Your task to perform on an android device: turn on data saver in the chrome app Image 0: 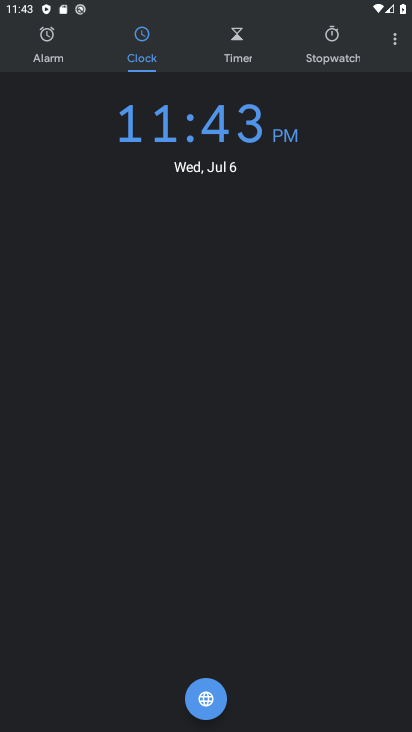
Step 0: press home button
Your task to perform on an android device: turn on data saver in the chrome app Image 1: 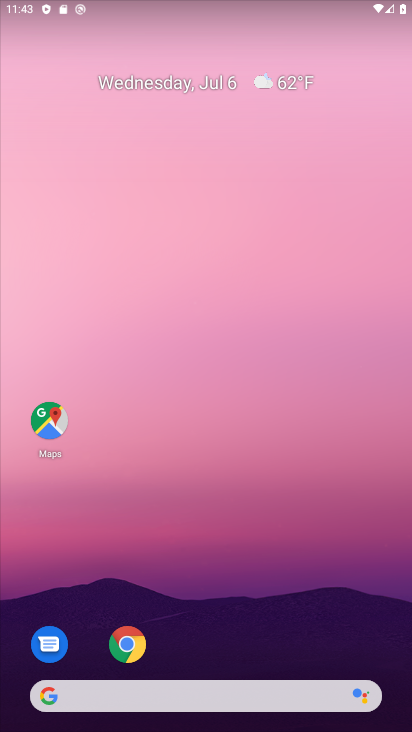
Step 1: drag from (246, 556) to (307, 131)
Your task to perform on an android device: turn on data saver in the chrome app Image 2: 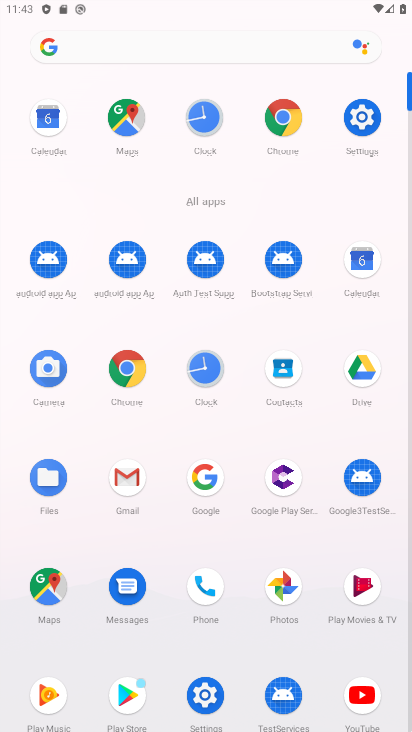
Step 2: click (137, 379)
Your task to perform on an android device: turn on data saver in the chrome app Image 3: 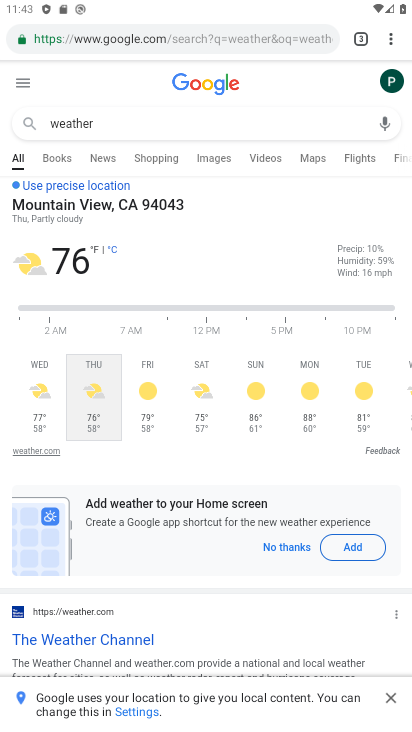
Step 3: click (382, 43)
Your task to perform on an android device: turn on data saver in the chrome app Image 4: 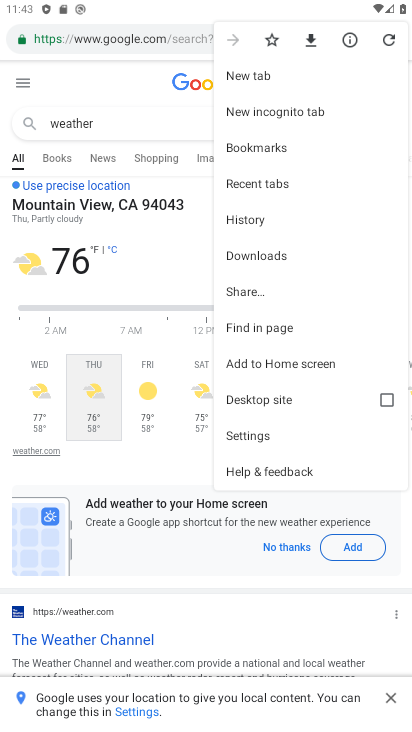
Step 4: click (273, 440)
Your task to perform on an android device: turn on data saver in the chrome app Image 5: 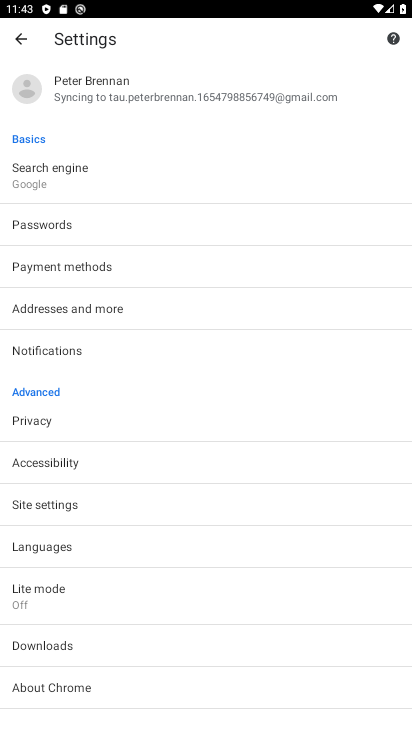
Step 5: click (86, 601)
Your task to perform on an android device: turn on data saver in the chrome app Image 6: 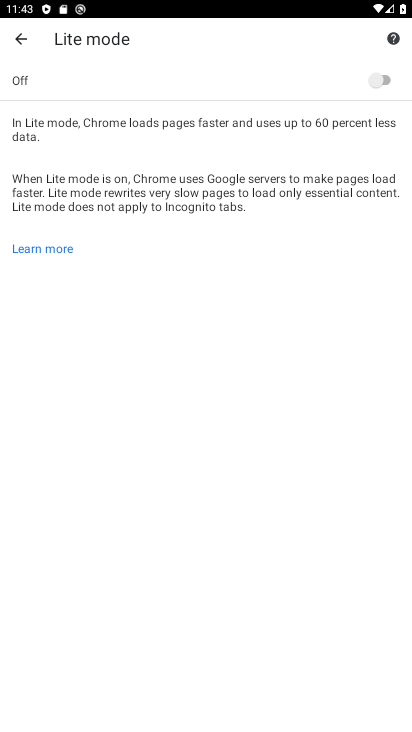
Step 6: click (368, 86)
Your task to perform on an android device: turn on data saver in the chrome app Image 7: 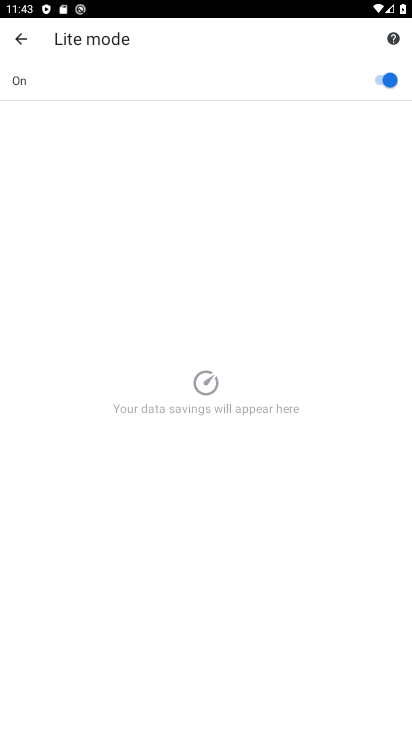
Step 7: task complete